Your task to perform on an android device: change your default location settings in chrome Image 0: 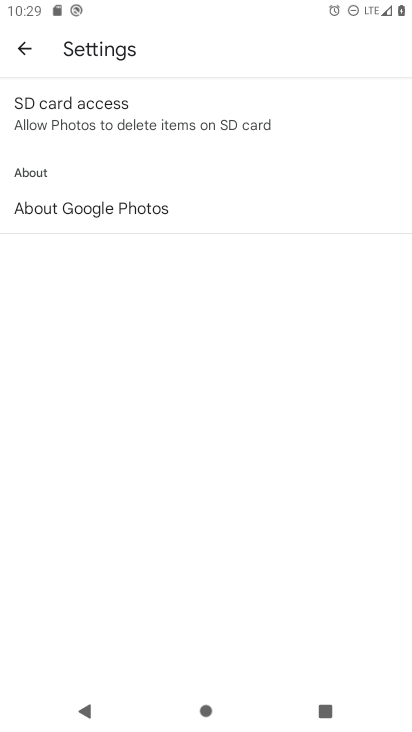
Step 0: press home button
Your task to perform on an android device: change your default location settings in chrome Image 1: 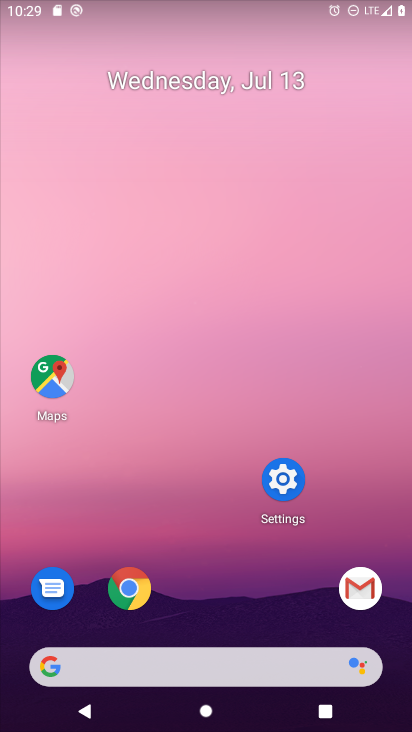
Step 1: click (136, 595)
Your task to perform on an android device: change your default location settings in chrome Image 2: 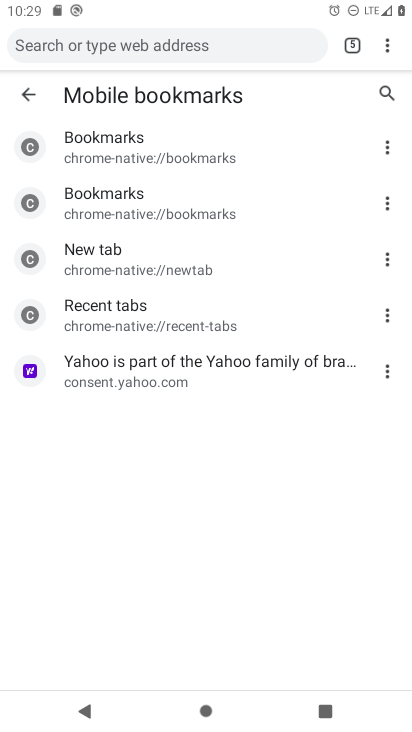
Step 2: click (117, 593)
Your task to perform on an android device: change your default location settings in chrome Image 3: 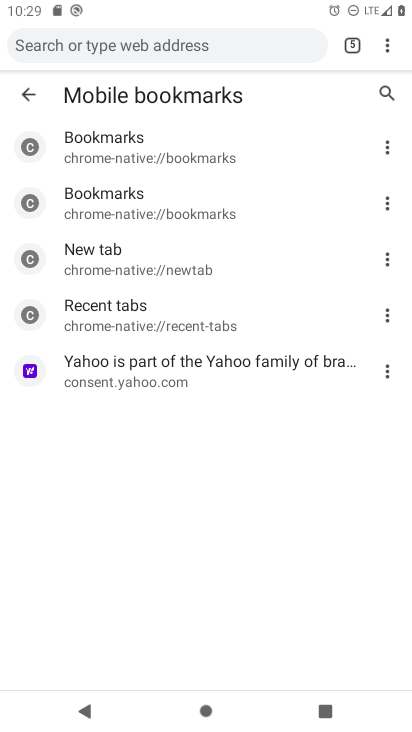
Step 3: click (388, 55)
Your task to perform on an android device: change your default location settings in chrome Image 4: 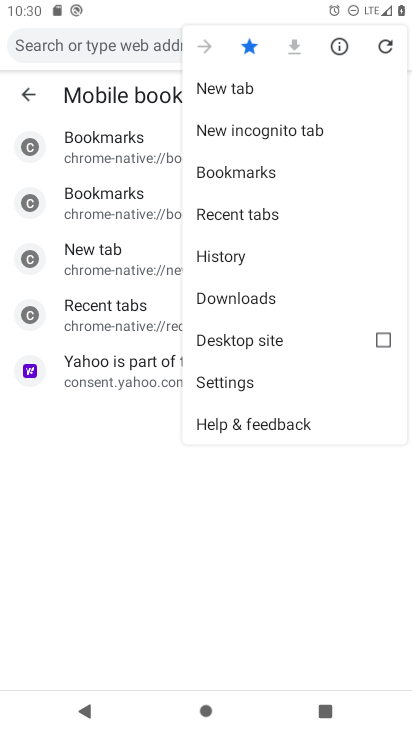
Step 4: click (220, 381)
Your task to perform on an android device: change your default location settings in chrome Image 5: 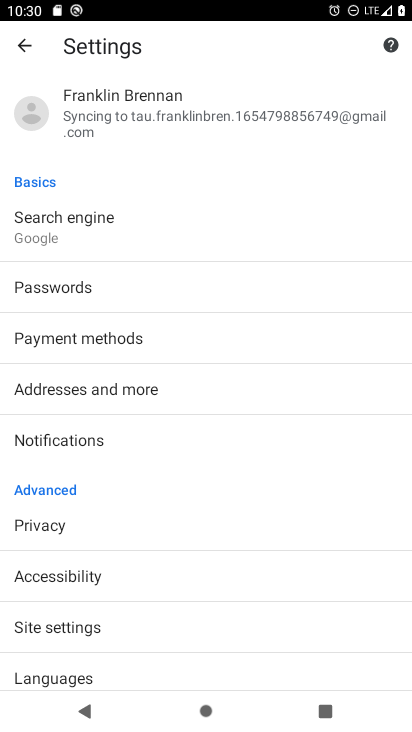
Step 5: drag from (83, 633) to (133, 454)
Your task to perform on an android device: change your default location settings in chrome Image 6: 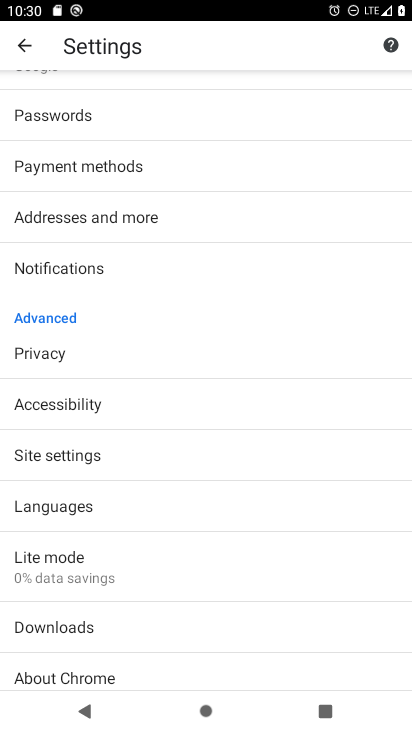
Step 6: click (65, 460)
Your task to perform on an android device: change your default location settings in chrome Image 7: 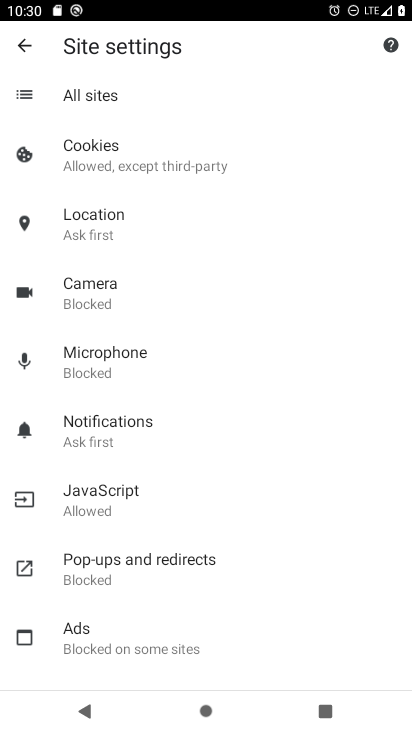
Step 7: click (113, 224)
Your task to perform on an android device: change your default location settings in chrome Image 8: 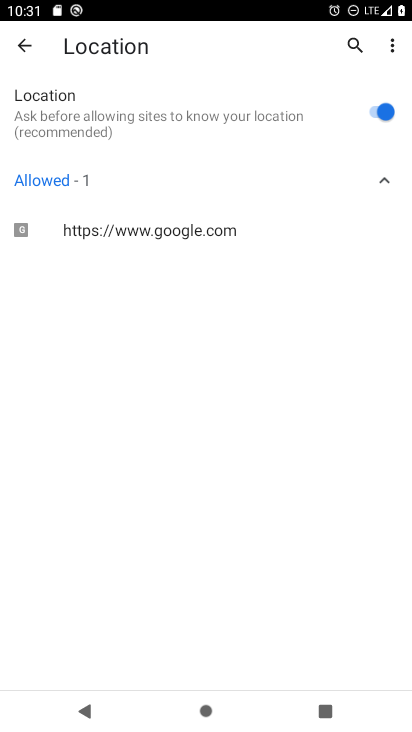
Step 8: task complete